Your task to perform on an android device: turn off location Image 0: 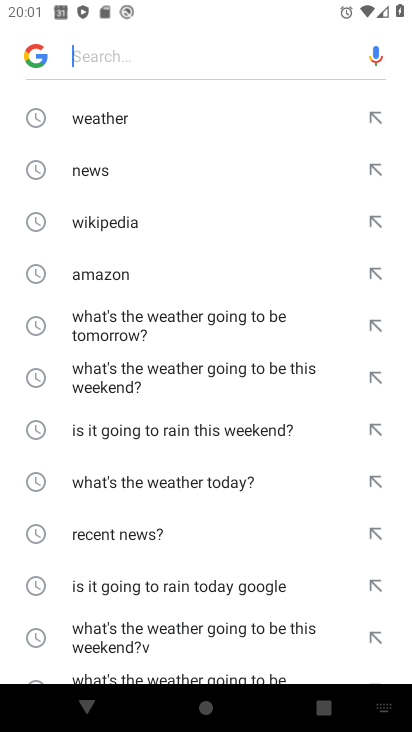
Step 0: press home button
Your task to perform on an android device: turn off location Image 1: 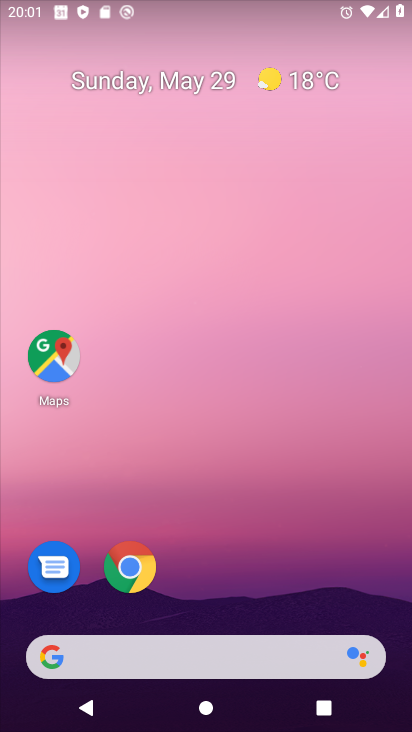
Step 1: drag from (388, 613) to (290, 28)
Your task to perform on an android device: turn off location Image 2: 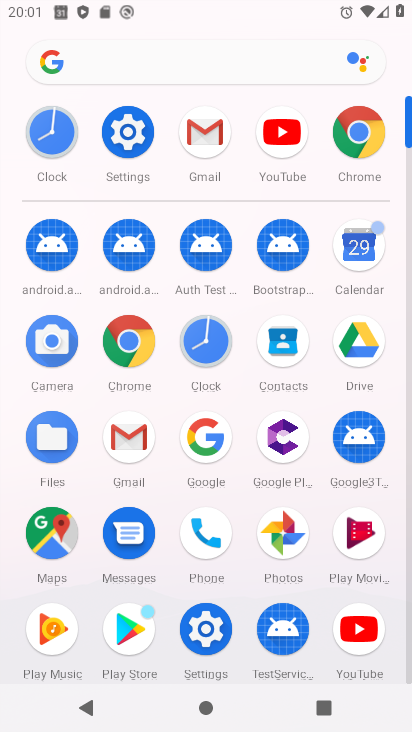
Step 2: click (120, 139)
Your task to perform on an android device: turn off location Image 3: 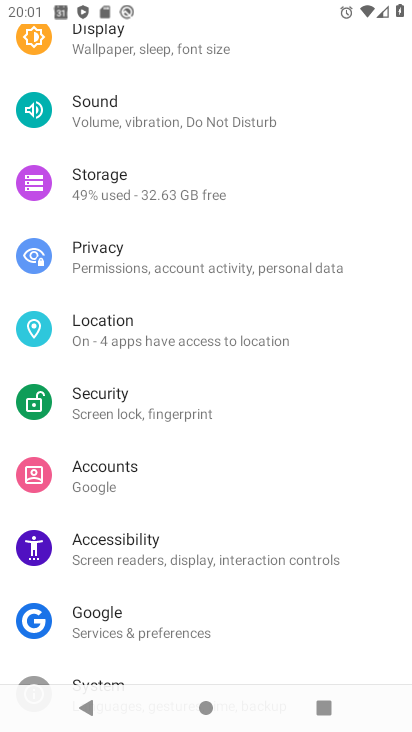
Step 3: click (102, 324)
Your task to perform on an android device: turn off location Image 4: 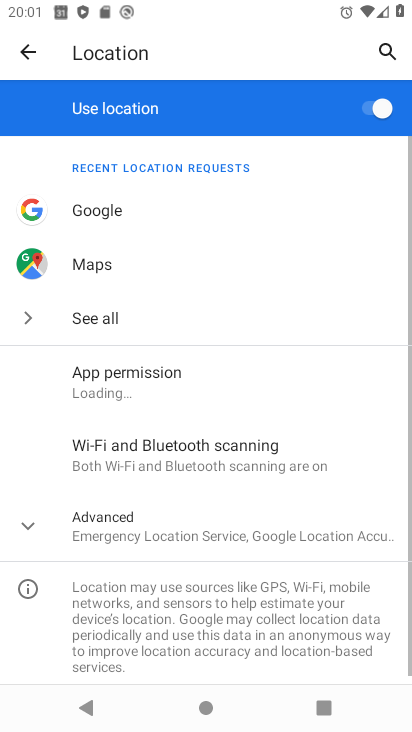
Step 4: click (361, 109)
Your task to perform on an android device: turn off location Image 5: 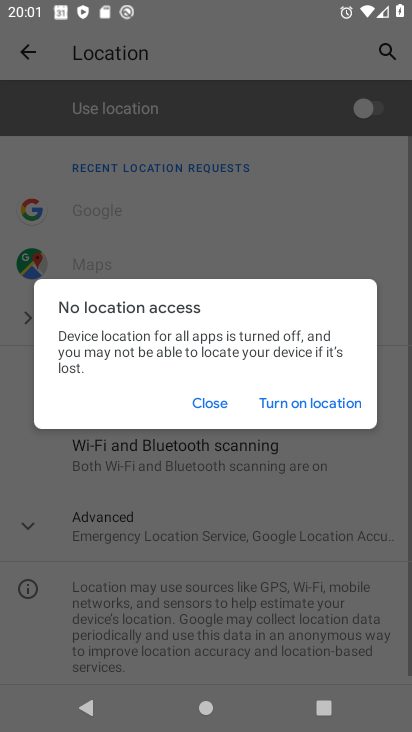
Step 5: task complete